Your task to perform on an android device: see tabs open on other devices in the chrome app Image 0: 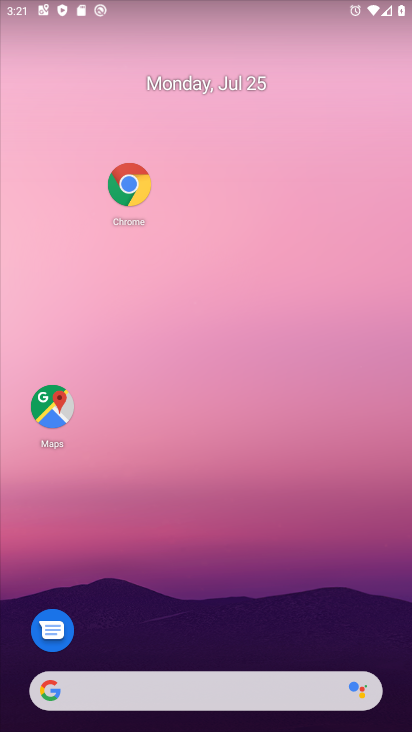
Step 0: click (118, 191)
Your task to perform on an android device: see tabs open on other devices in the chrome app Image 1: 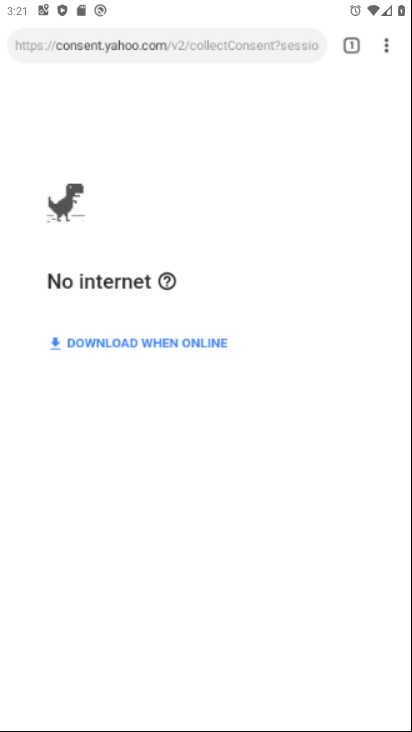
Step 1: task complete